Your task to perform on an android device: Open maps Image 0: 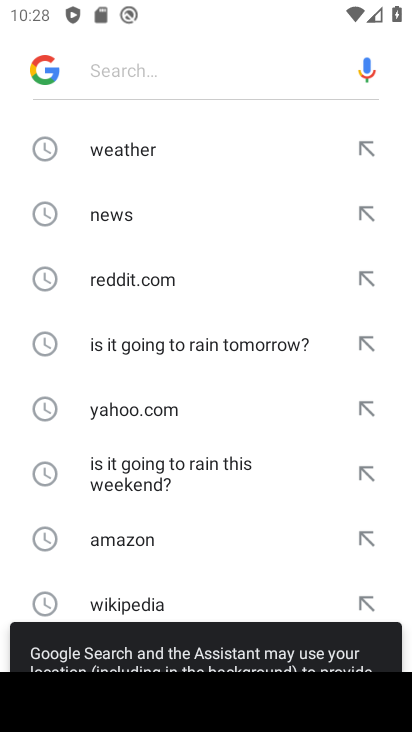
Step 0: press home button
Your task to perform on an android device: Open maps Image 1: 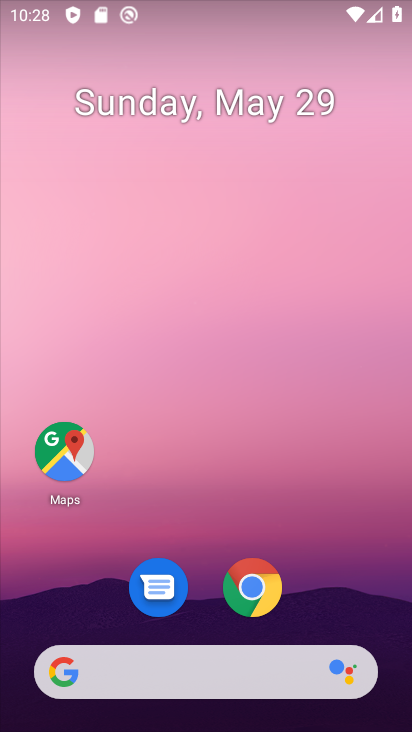
Step 1: click (70, 464)
Your task to perform on an android device: Open maps Image 2: 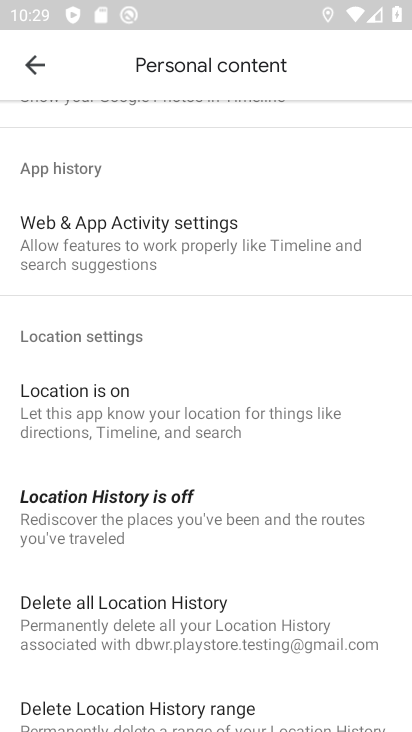
Step 2: click (29, 61)
Your task to perform on an android device: Open maps Image 3: 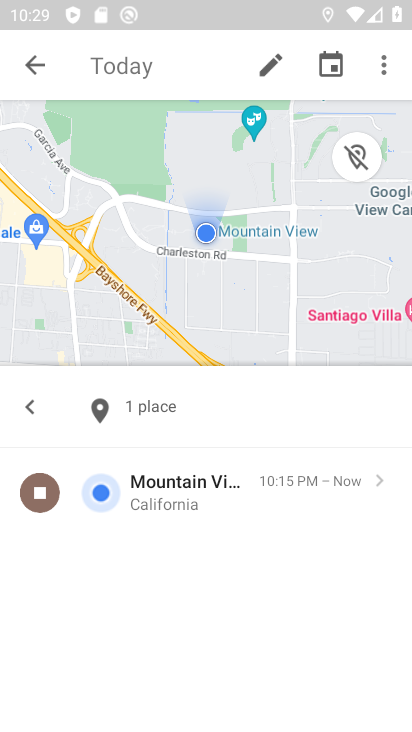
Step 3: click (29, 61)
Your task to perform on an android device: Open maps Image 4: 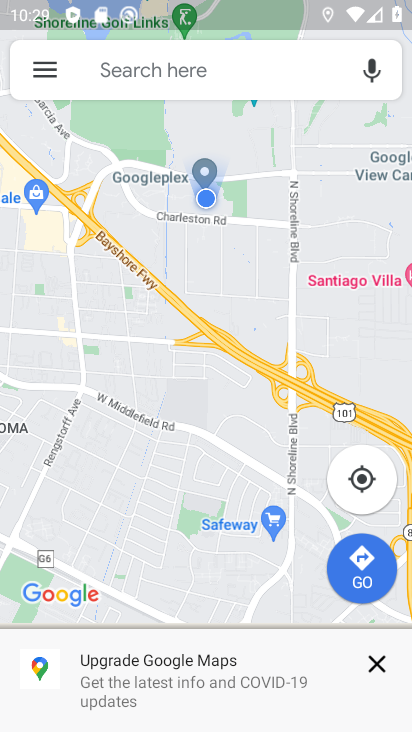
Step 4: task complete